Your task to perform on an android device: open chrome and create a bookmark for the current page Image 0: 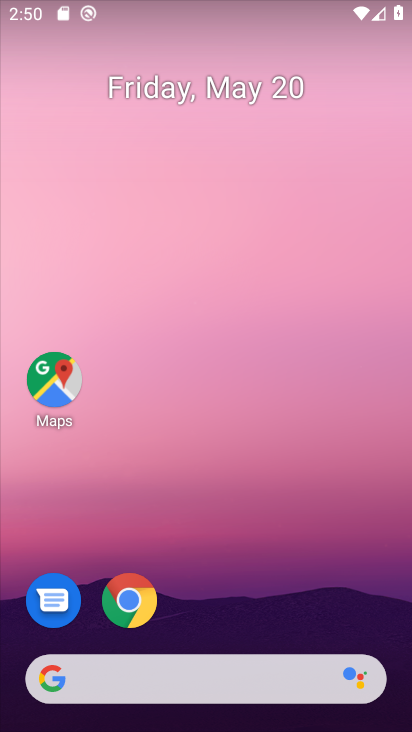
Step 0: drag from (370, 602) to (372, 263)
Your task to perform on an android device: open chrome and create a bookmark for the current page Image 1: 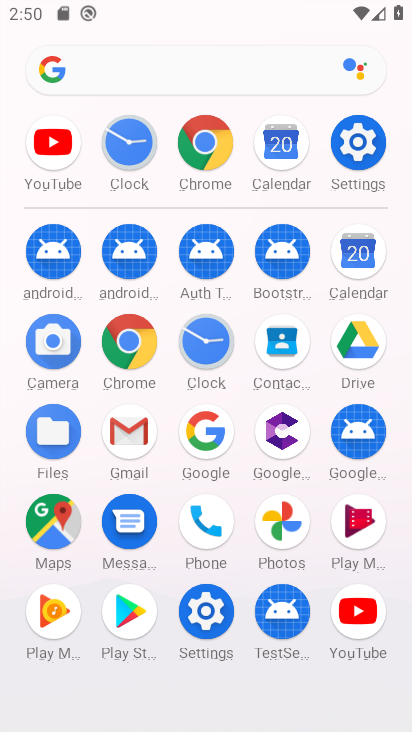
Step 1: click (131, 359)
Your task to perform on an android device: open chrome and create a bookmark for the current page Image 2: 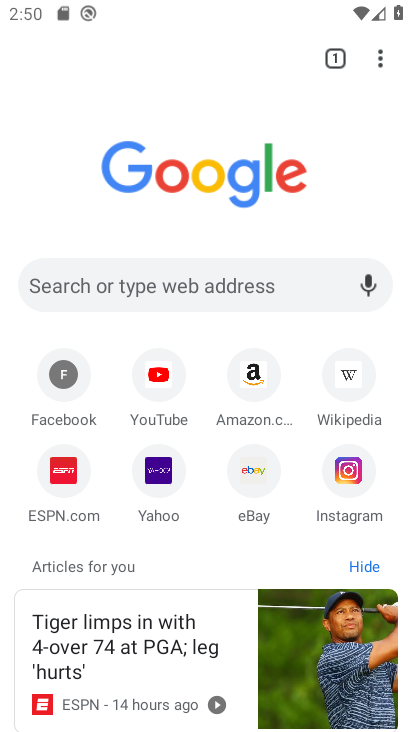
Step 2: click (381, 65)
Your task to perform on an android device: open chrome and create a bookmark for the current page Image 3: 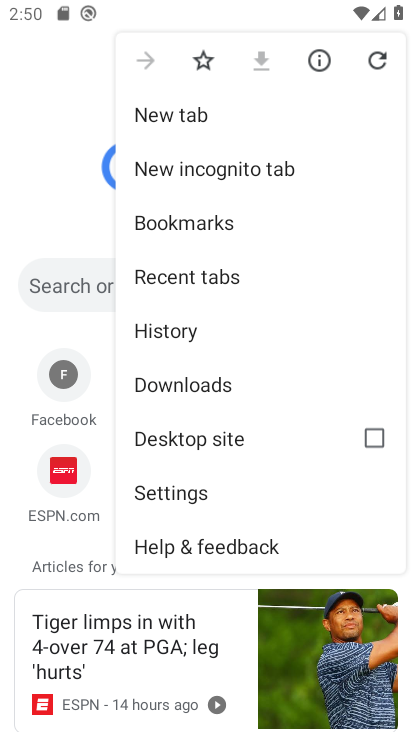
Step 3: click (203, 60)
Your task to perform on an android device: open chrome and create a bookmark for the current page Image 4: 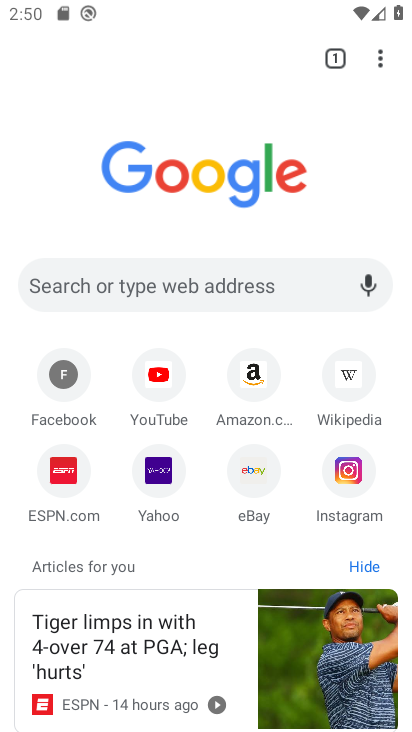
Step 4: task complete